Your task to perform on an android device: What is the recent news? Image 0: 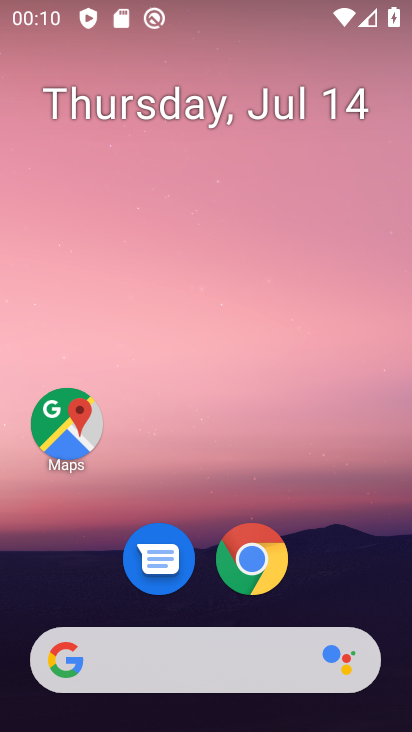
Step 0: click (243, 665)
Your task to perform on an android device: What is the recent news? Image 1: 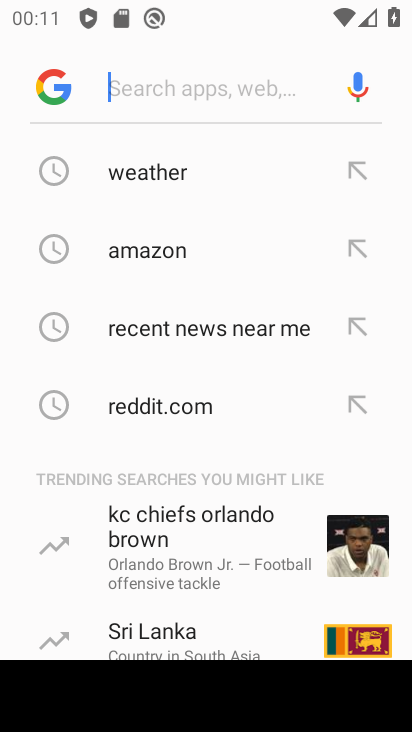
Step 1: type "recent news"
Your task to perform on an android device: What is the recent news? Image 2: 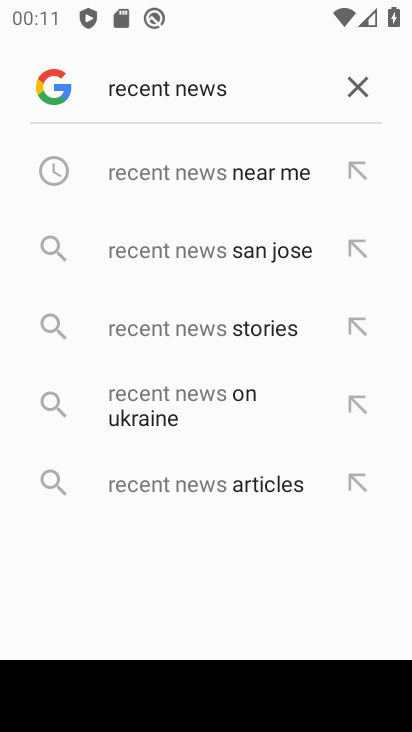
Step 2: click (63, 169)
Your task to perform on an android device: What is the recent news? Image 3: 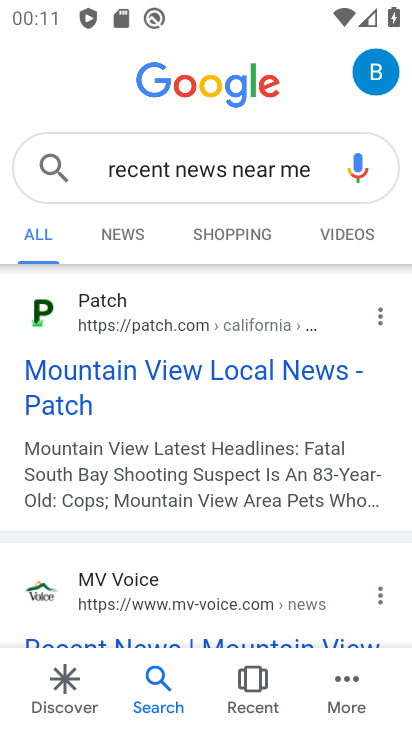
Step 3: click (114, 228)
Your task to perform on an android device: What is the recent news? Image 4: 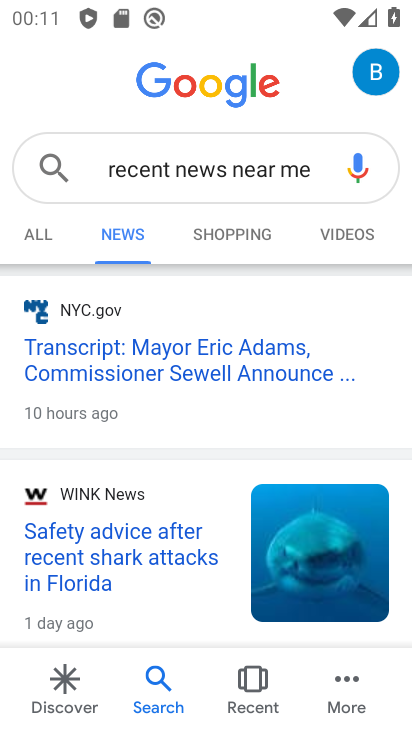
Step 4: task complete